Your task to perform on an android device: Search for seafood restaurants on Google Maps Image 0: 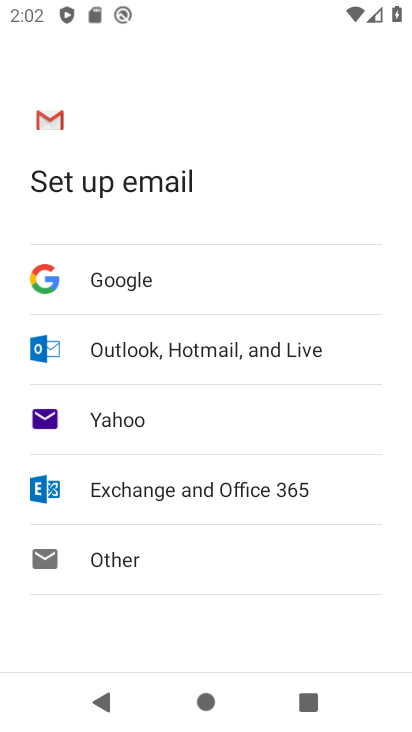
Step 0: press home button
Your task to perform on an android device: Search for seafood restaurants on Google Maps Image 1: 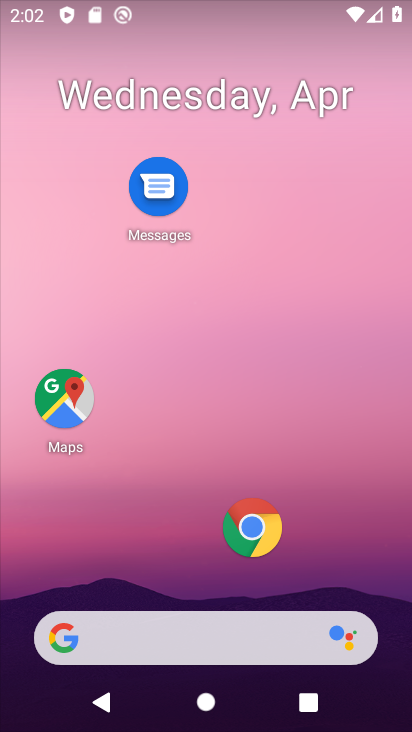
Step 1: click (50, 411)
Your task to perform on an android device: Search for seafood restaurants on Google Maps Image 2: 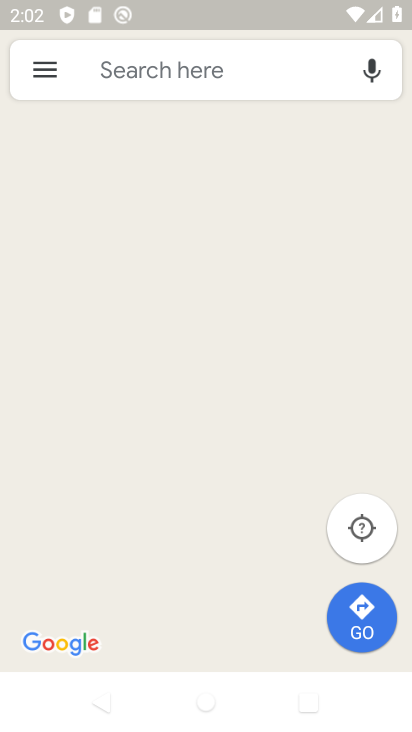
Step 2: click (132, 76)
Your task to perform on an android device: Search for seafood restaurants on Google Maps Image 3: 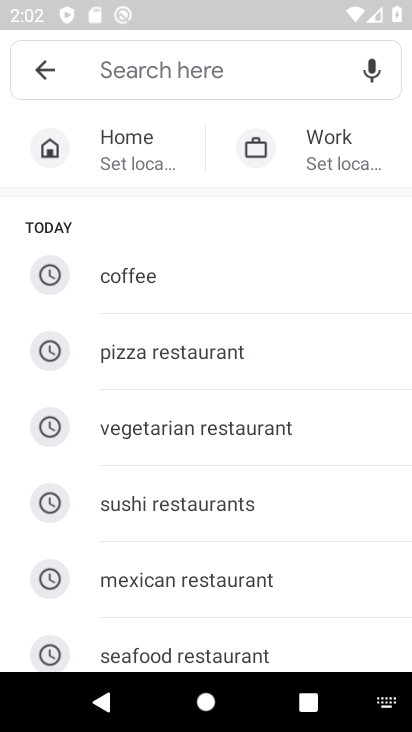
Step 3: type "seafood restaurants"
Your task to perform on an android device: Search for seafood restaurants on Google Maps Image 4: 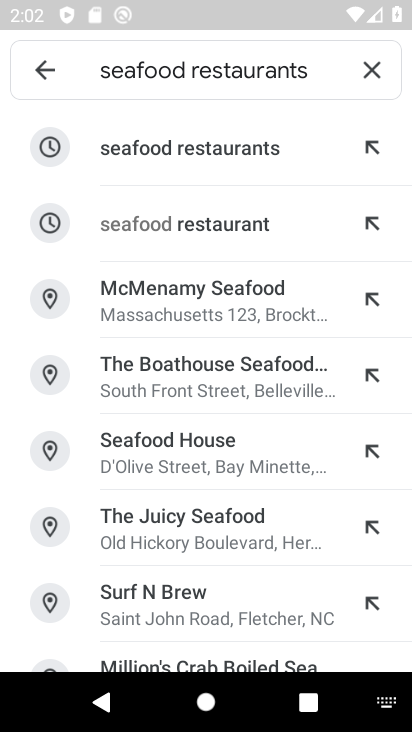
Step 4: click (213, 157)
Your task to perform on an android device: Search for seafood restaurants on Google Maps Image 5: 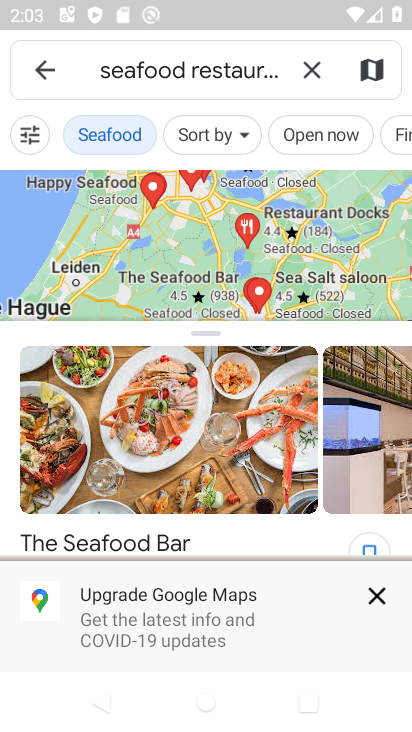
Step 5: task complete